Your task to perform on an android device: turn off smart reply in the gmail app Image 0: 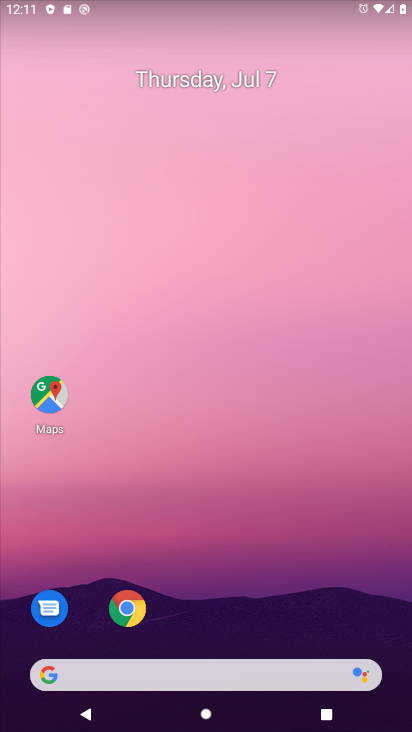
Step 0: drag from (154, 650) to (185, 105)
Your task to perform on an android device: turn off smart reply in the gmail app Image 1: 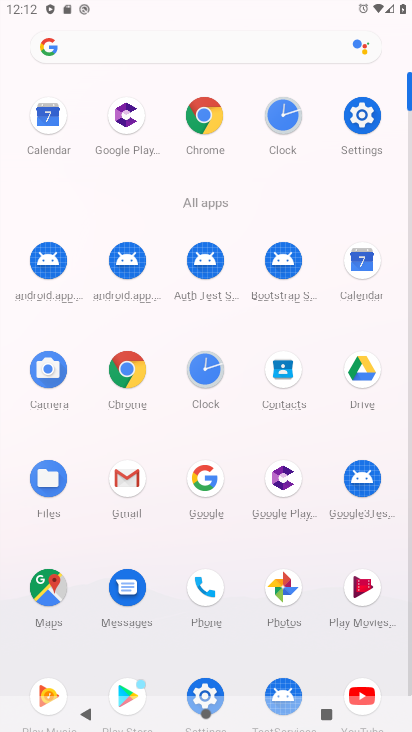
Step 1: click (117, 483)
Your task to perform on an android device: turn off smart reply in the gmail app Image 2: 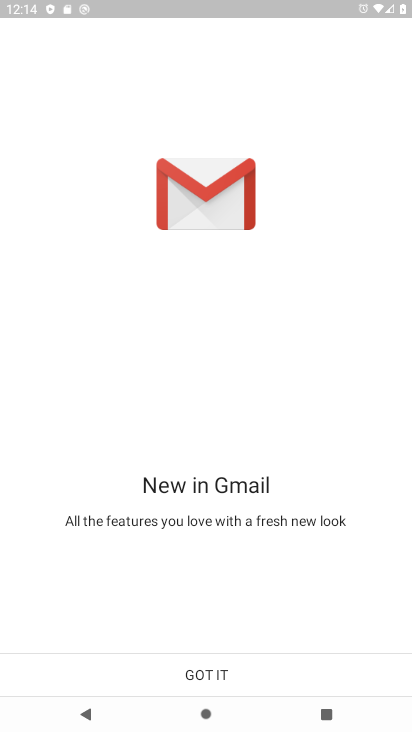
Step 2: click (200, 654)
Your task to perform on an android device: turn off smart reply in the gmail app Image 3: 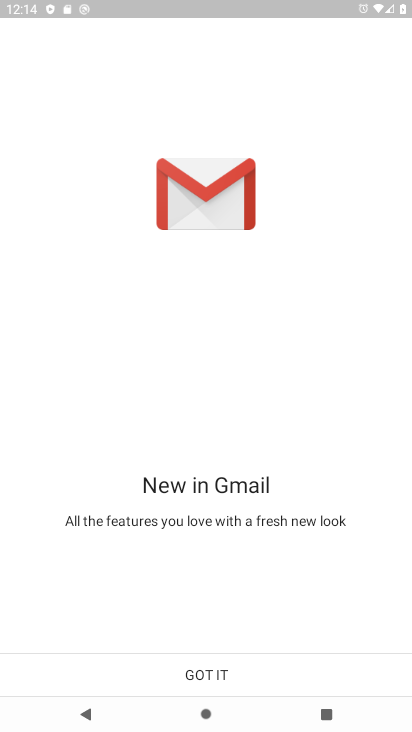
Step 3: click (201, 673)
Your task to perform on an android device: turn off smart reply in the gmail app Image 4: 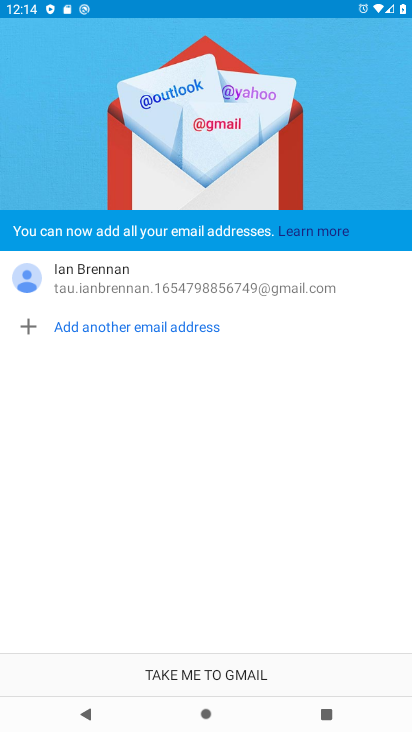
Step 4: click (209, 673)
Your task to perform on an android device: turn off smart reply in the gmail app Image 5: 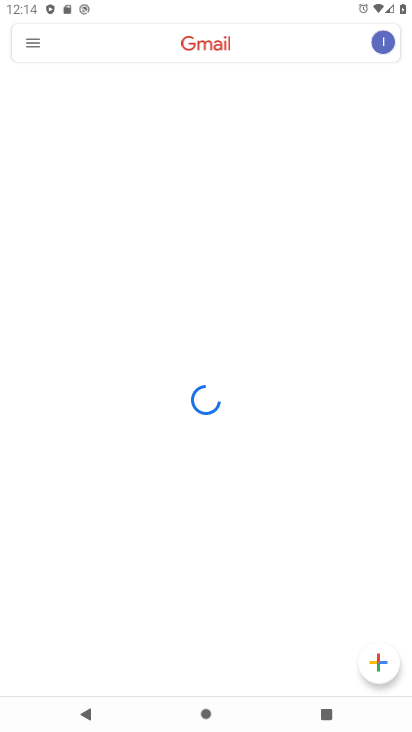
Step 5: click (36, 45)
Your task to perform on an android device: turn off smart reply in the gmail app Image 6: 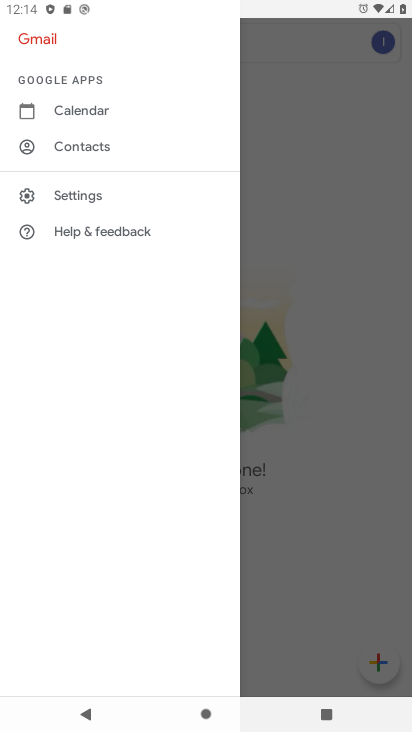
Step 6: click (81, 183)
Your task to perform on an android device: turn off smart reply in the gmail app Image 7: 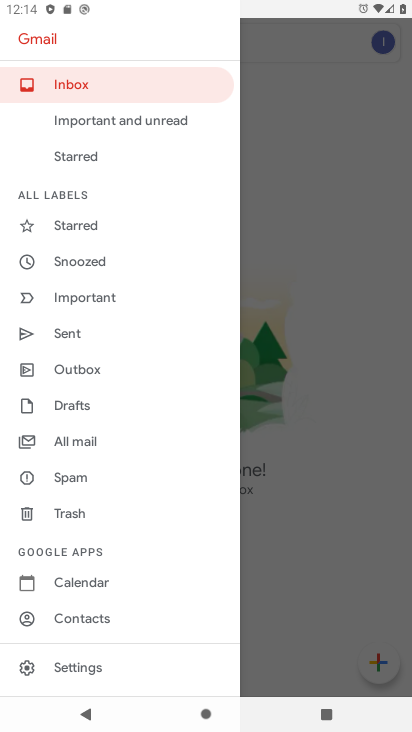
Step 7: click (89, 652)
Your task to perform on an android device: turn off smart reply in the gmail app Image 8: 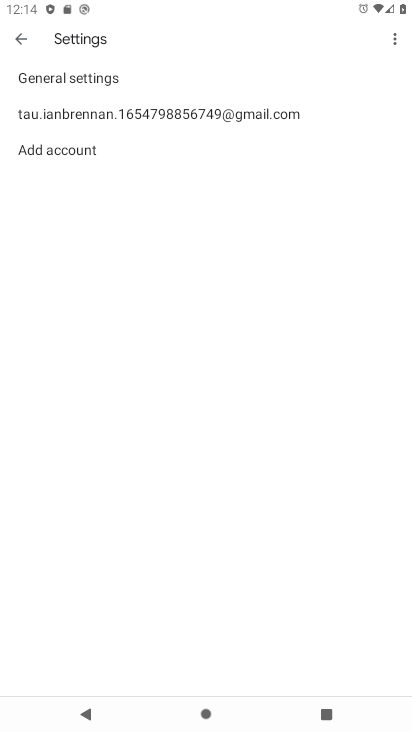
Step 8: click (84, 99)
Your task to perform on an android device: turn off smart reply in the gmail app Image 9: 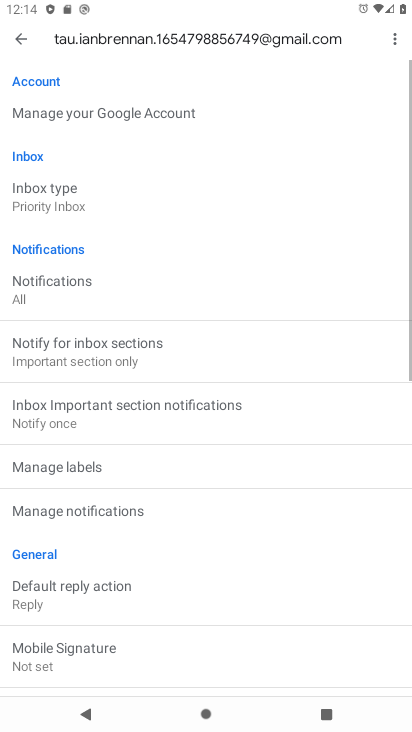
Step 9: drag from (106, 597) to (177, 0)
Your task to perform on an android device: turn off smart reply in the gmail app Image 10: 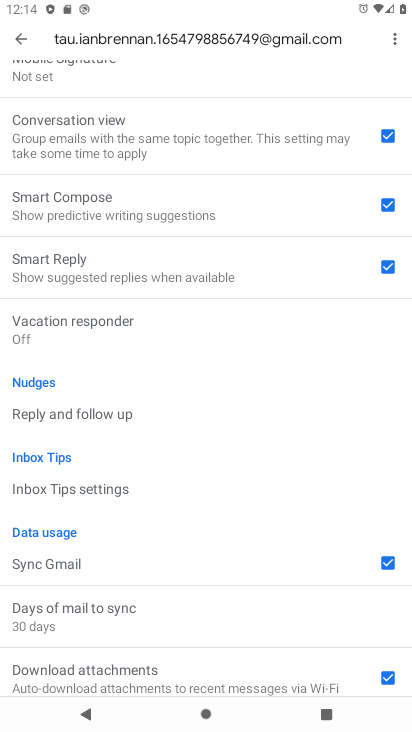
Step 10: click (383, 270)
Your task to perform on an android device: turn off smart reply in the gmail app Image 11: 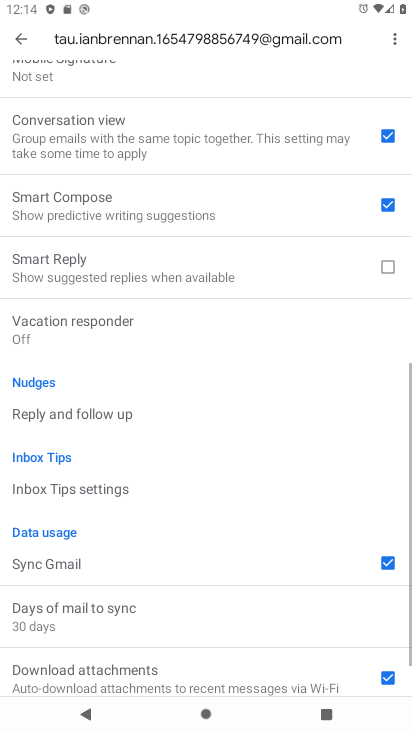
Step 11: task complete